Your task to perform on an android device: Show me popular videos on Youtube Image 0: 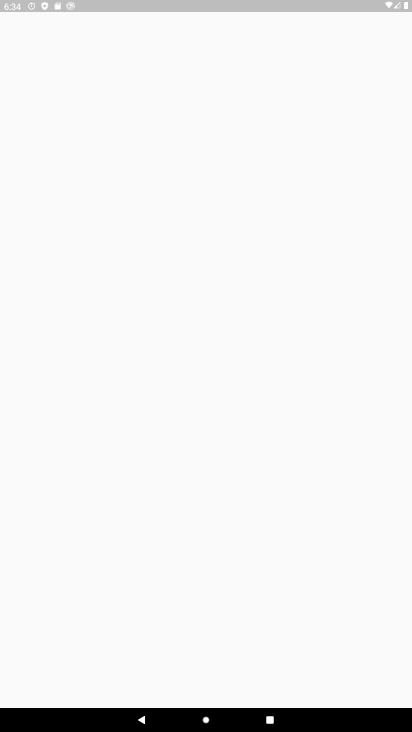
Step 0: press home button
Your task to perform on an android device: Show me popular videos on Youtube Image 1: 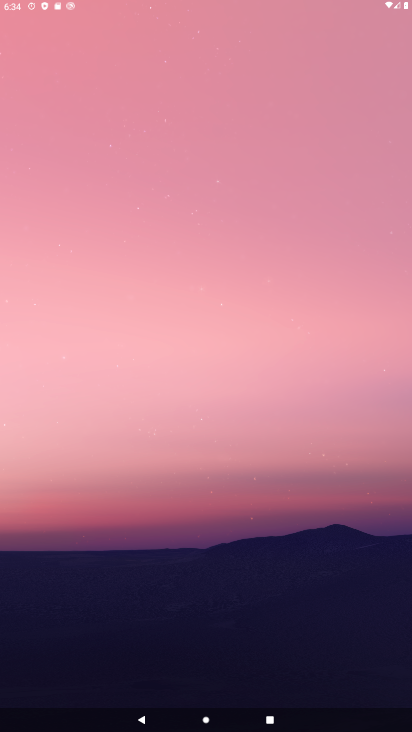
Step 1: drag from (364, 705) to (196, 34)
Your task to perform on an android device: Show me popular videos on Youtube Image 2: 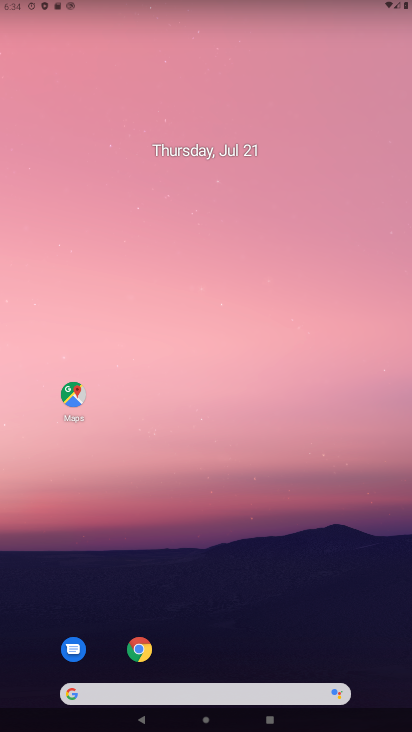
Step 2: drag from (353, 601) to (187, 107)
Your task to perform on an android device: Show me popular videos on Youtube Image 3: 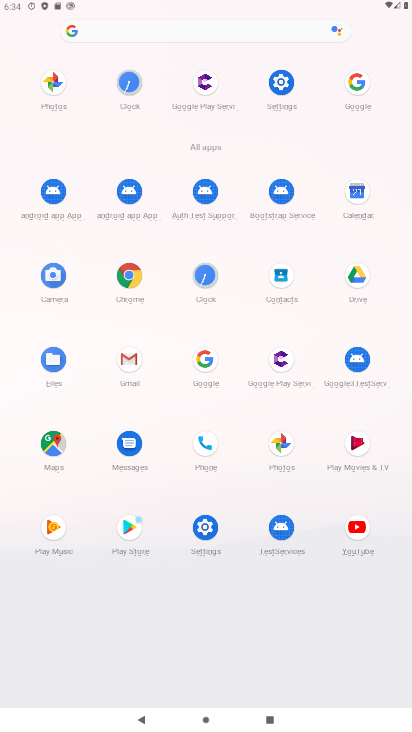
Step 3: click (352, 531)
Your task to perform on an android device: Show me popular videos on Youtube Image 4: 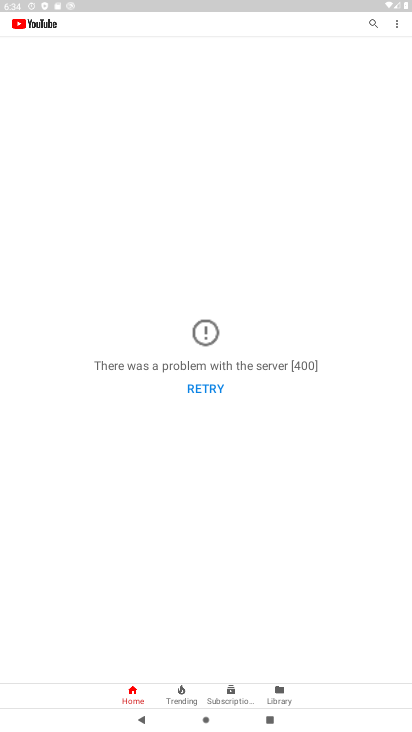
Step 4: click (189, 384)
Your task to perform on an android device: Show me popular videos on Youtube Image 5: 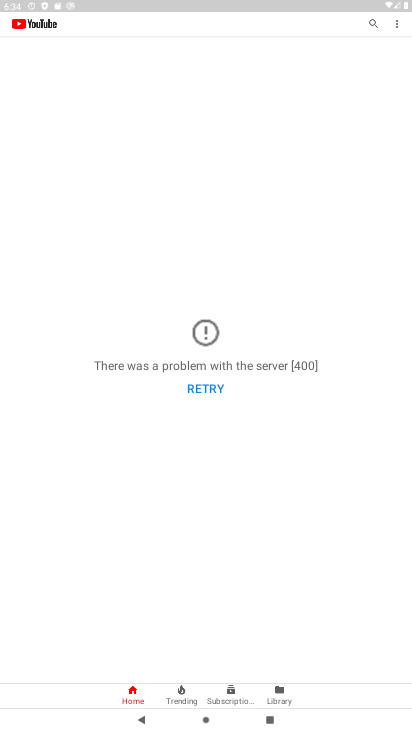
Step 5: click (189, 384)
Your task to perform on an android device: Show me popular videos on Youtube Image 6: 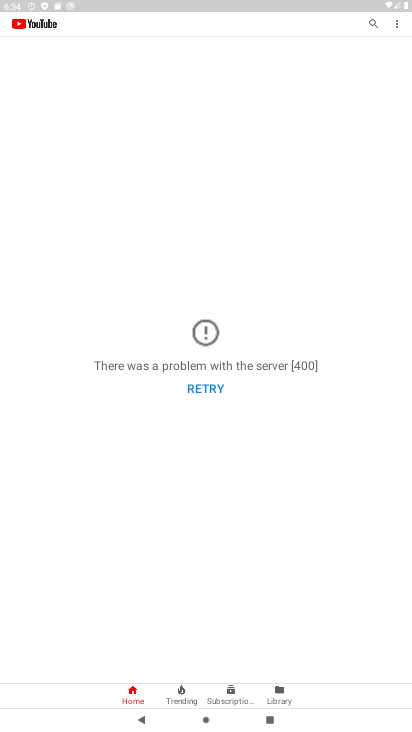
Step 6: task complete